Your task to perform on an android device: Open display settings Image 0: 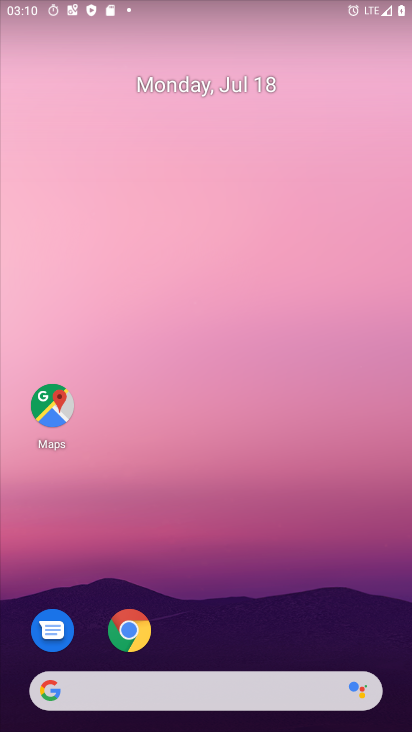
Step 0: drag from (188, 621) to (240, 33)
Your task to perform on an android device: Open display settings Image 1: 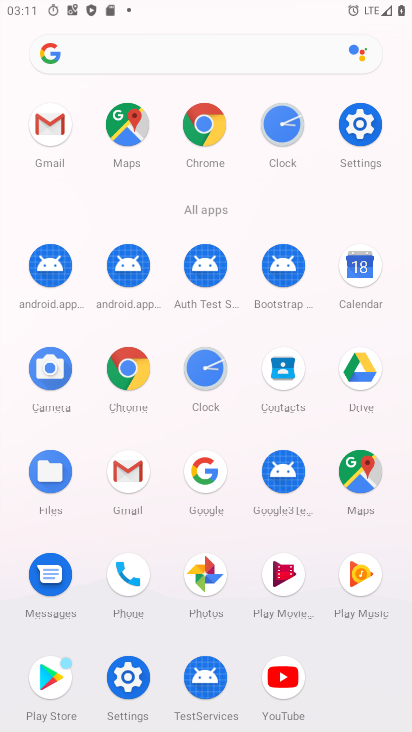
Step 1: click (371, 122)
Your task to perform on an android device: Open display settings Image 2: 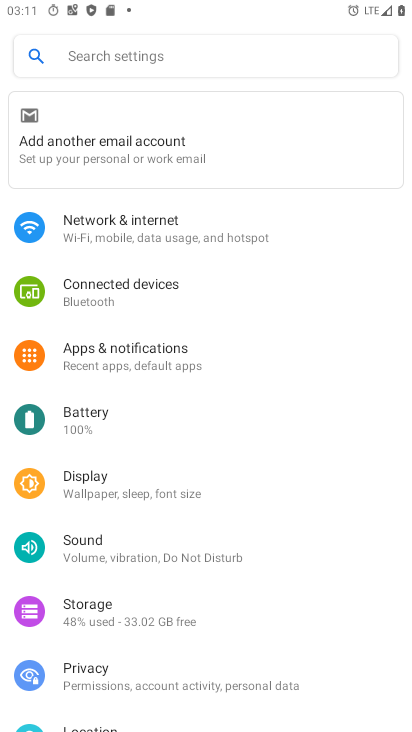
Step 2: task complete